Your task to perform on an android device: What is the recent news? Image 0: 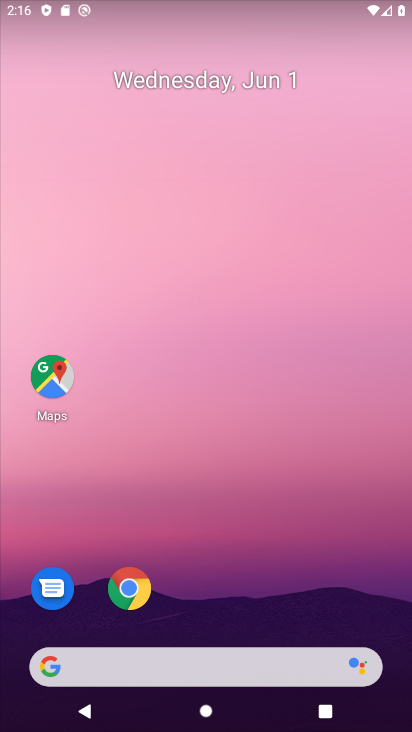
Step 0: click (182, 666)
Your task to perform on an android device: What is the recent news? Image 1: 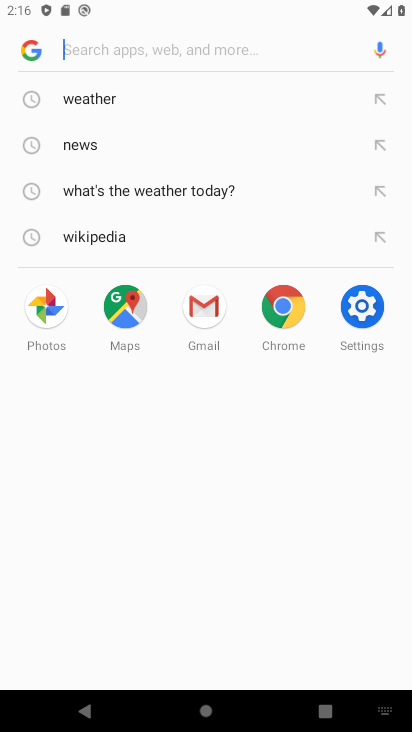
Step 1: click (67, 141)
Your task to perform on an android device: What is the recent news? Image 2: 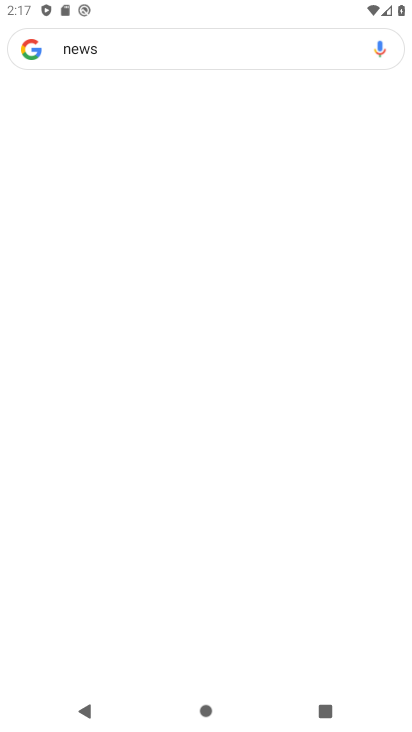
Step 2: click (82, 143)
Your task to perform on an android device: What is the recent news? Image 3: 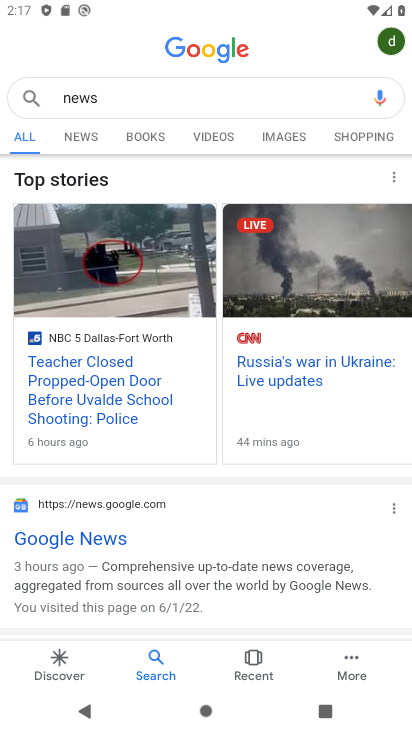
Step 3: click (80, 538)
Your task to perform on an android device: What is the recent news? Image 4: 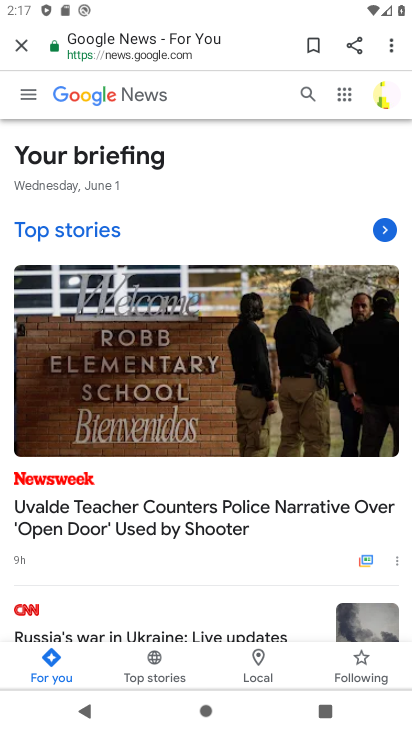
Step 4: task complete